Your task to perform on an android device: Open Amazon Image 0: 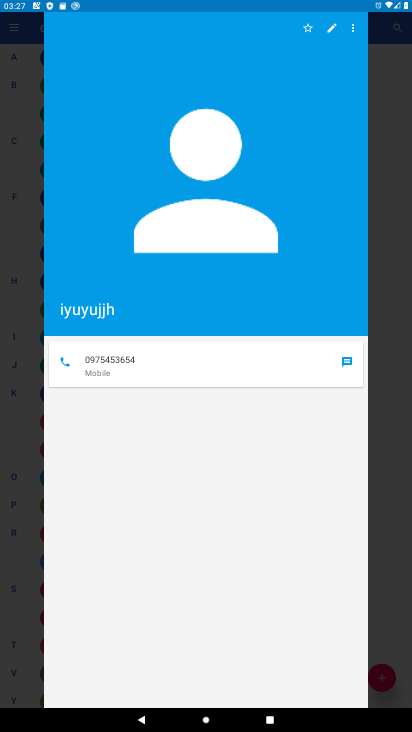
Step 0: press home button
Your task to perform on an android device: Open Amazon Image 1: 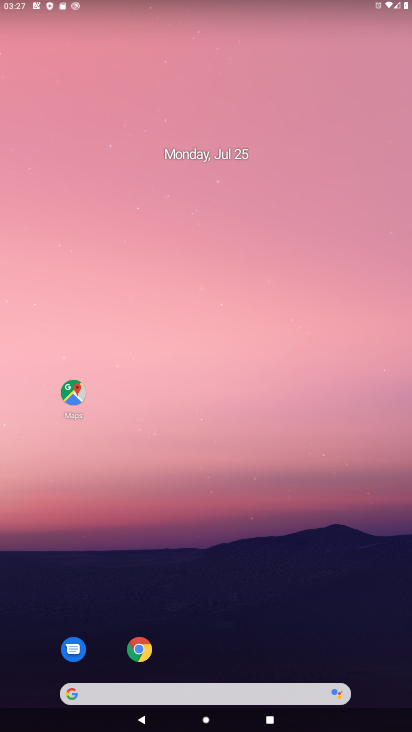
Step 1: click (138, 654)
Your task to perform on an android device: Open Amazon Image 2: 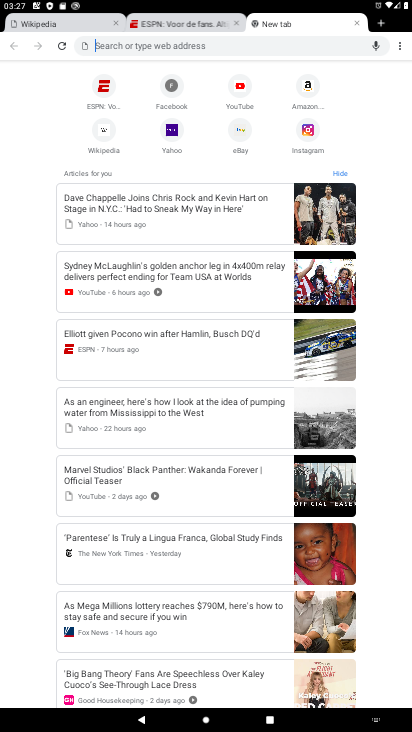
Step 2: type "amazon"
Your task to perform on an android device: Open Amazon Image 3: 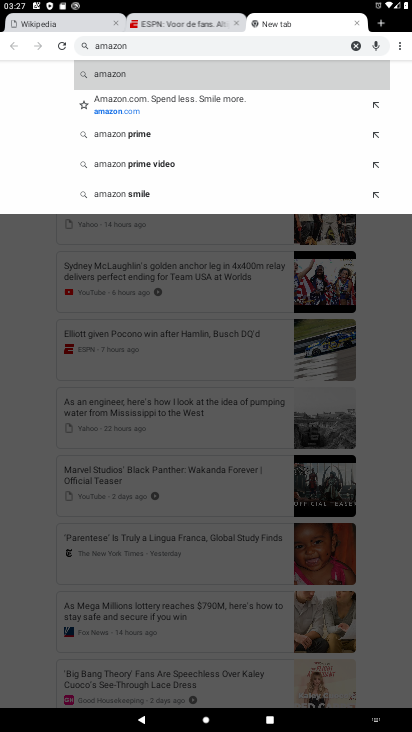
Step 3: click (116, 74)
Your task to perform on an android device: Open Amazon Image 4: 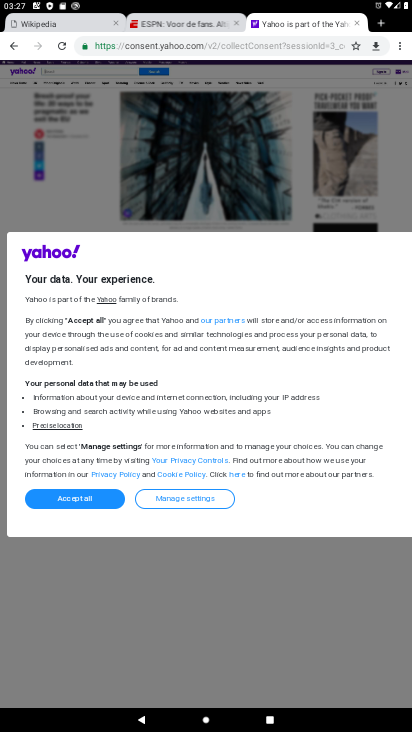
Step 4: click (72, 493)
Your task to perform on an android device: Open Amazon Image 5: 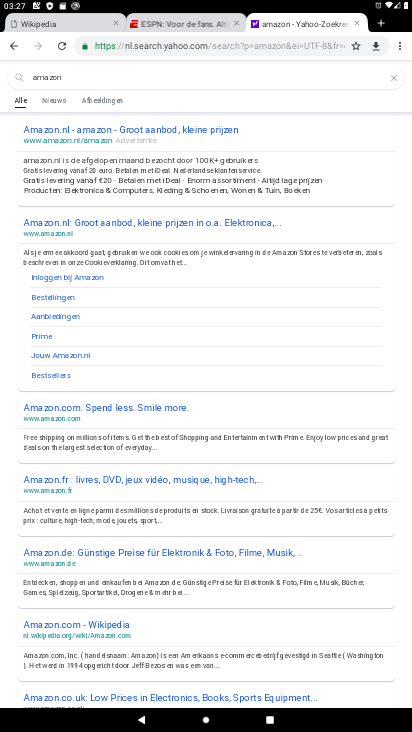
Step 5: click (62, 126)
Your task to perform on an android device: Open Amazon Image 6: 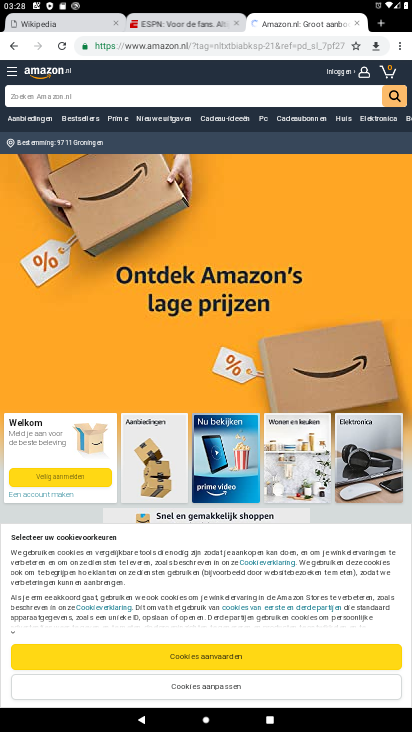
Step 6: click (195, 659)
Your task to perform on an android device: Open Amazon Image 7: 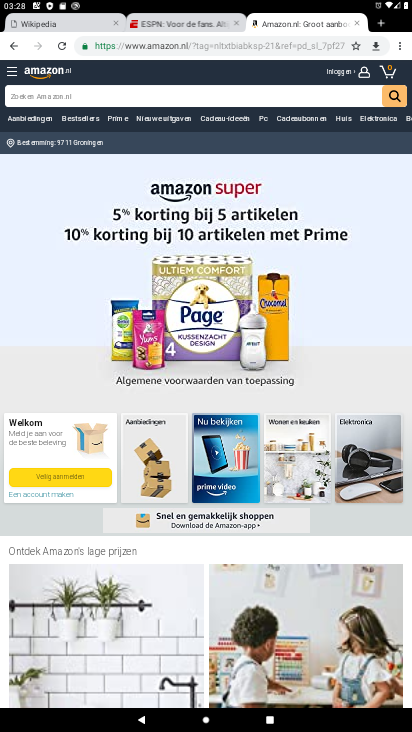
Step 7: task complete